Your task to perform on an android device: What's the weather? Image 0: 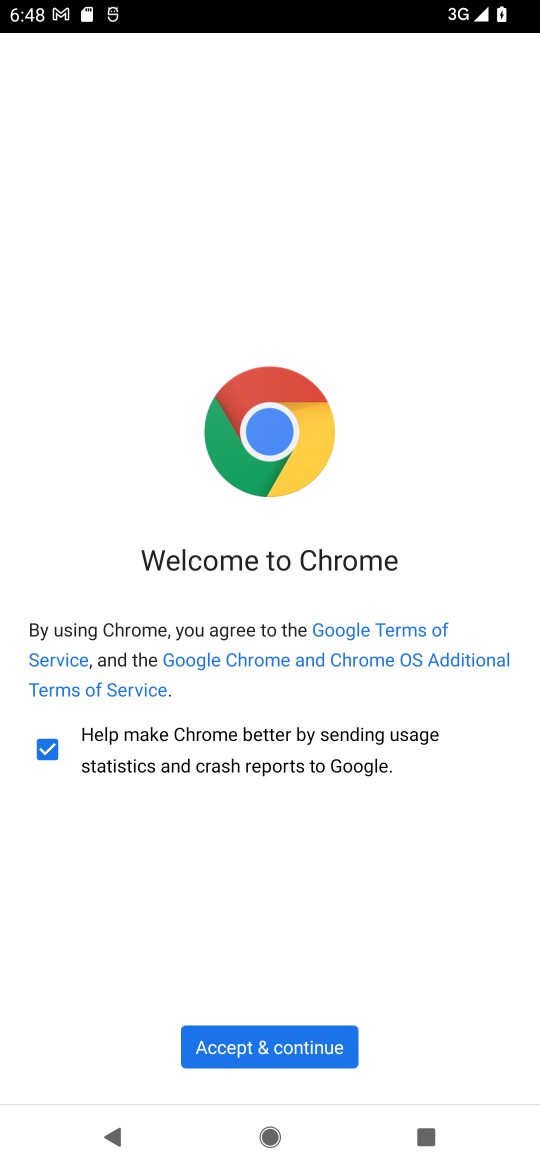
Step 0: press home button
Your task to perform on an android device: What's the weather? Image 1: 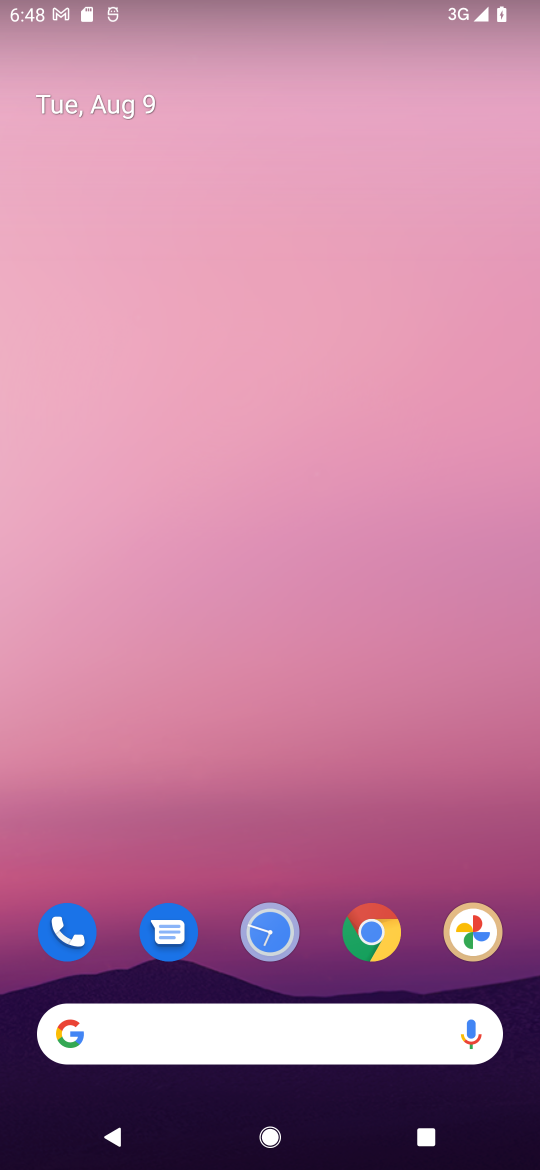
Step 1: drag from (402, 599) to (487, 236)
Your task to perform on an android device: What's the weather? Image 2: 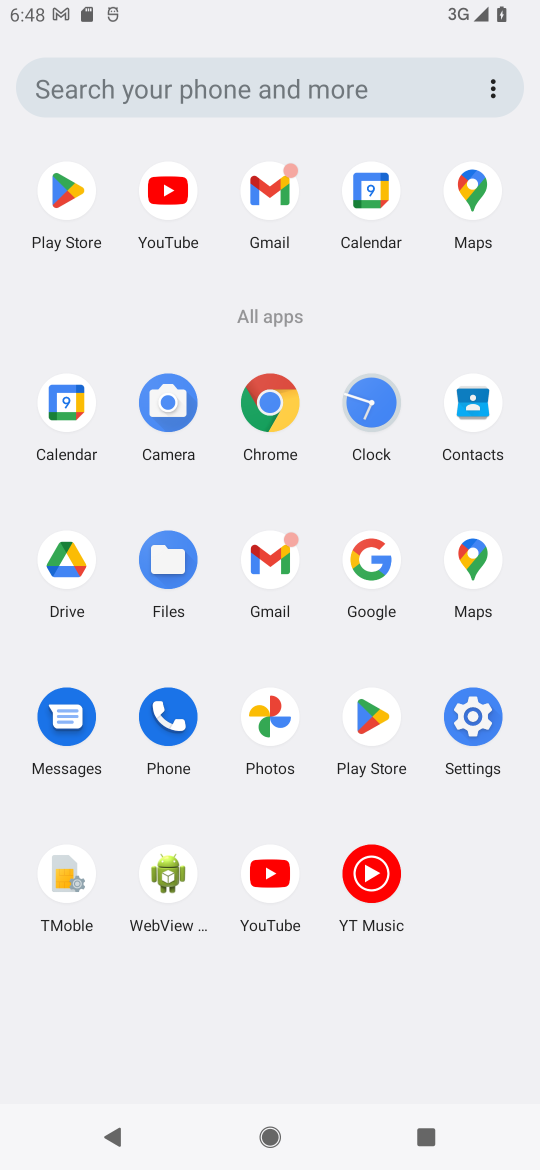
Step 2: click (349, 589)
Your task to perform on an android device: What's the weather? Image 3: 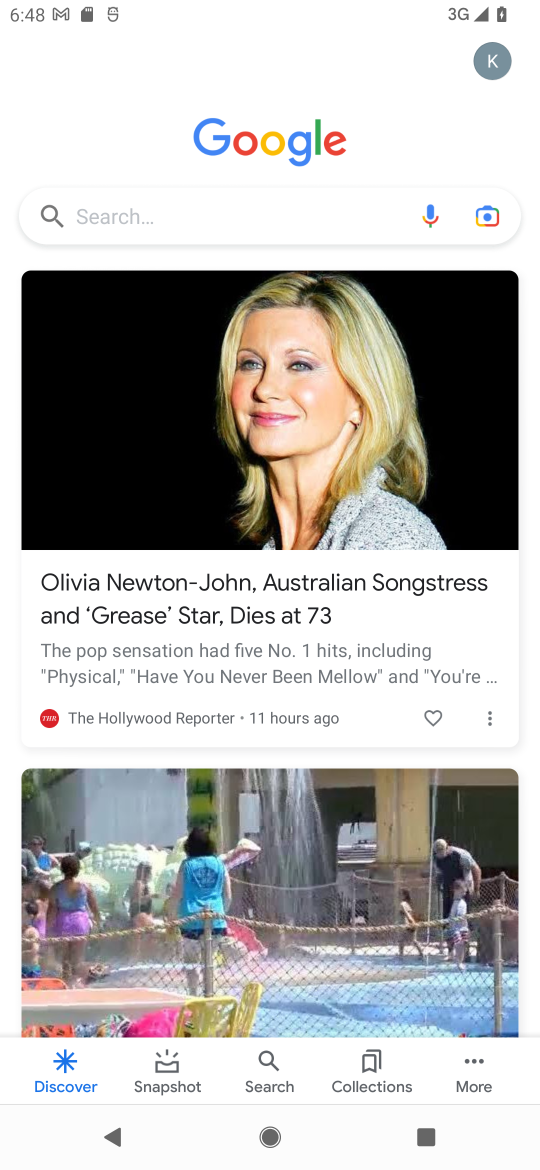
Step 3: click (305, 220)
Your task to perform on an android device: What's the weather? Image 4: 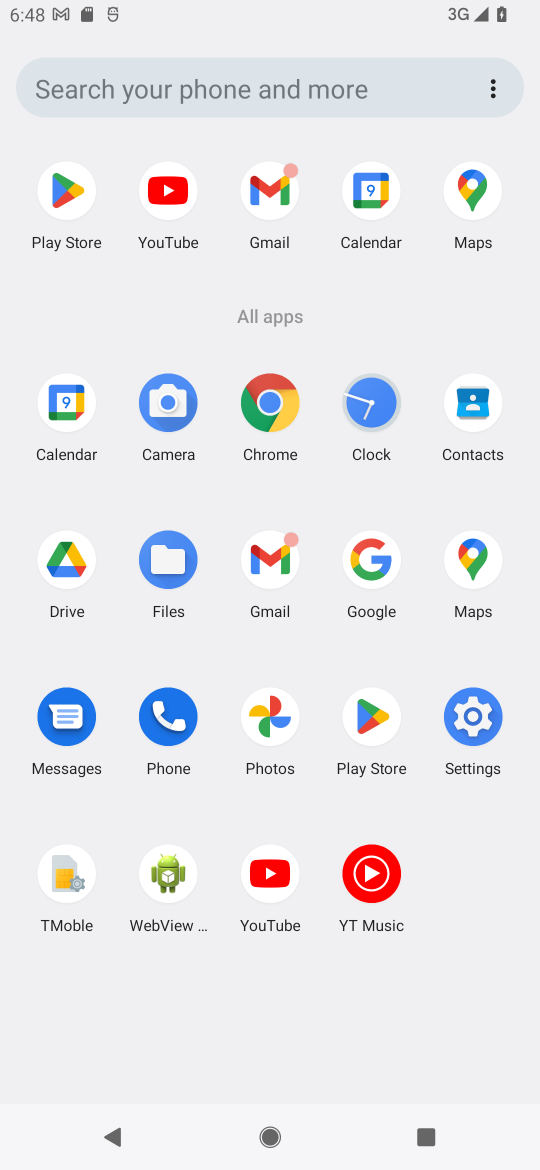
Step 4: click (384, 574)
Your task to perform on an android device: What's the weather? Image 5: 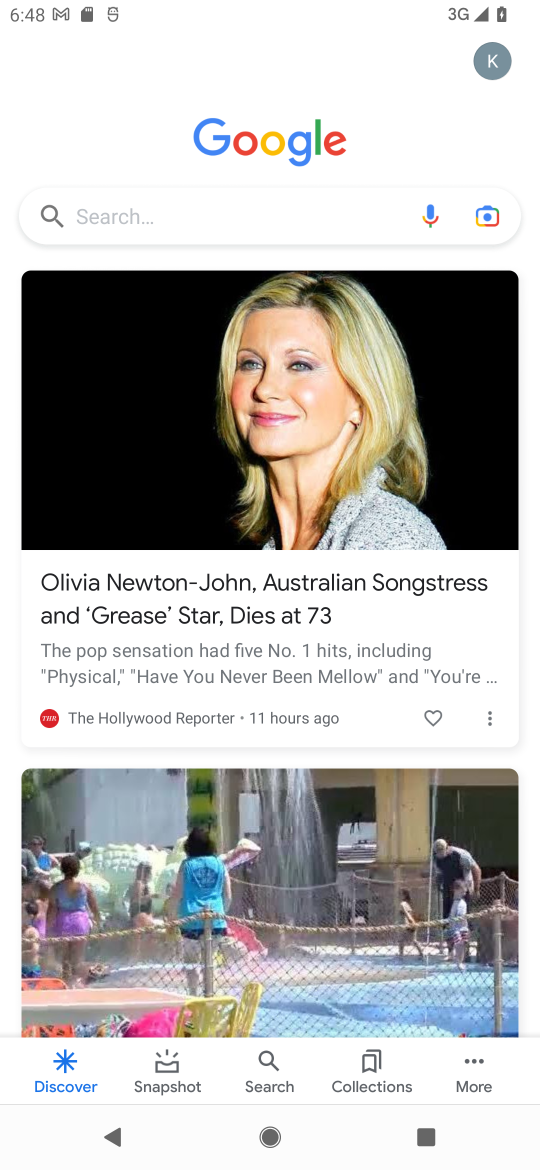
Step 5: click (250, 223)
Your task to perform on an android device: What's the weather? Image 6: 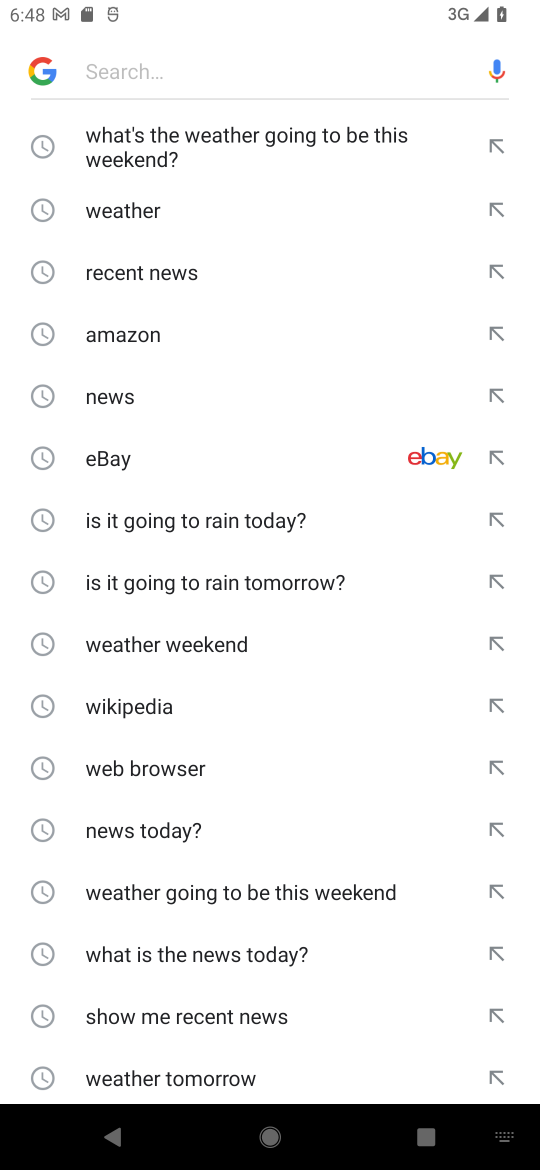
Step 6: click (166, 207)
Your task to perform on an android device: What's the weather? Image 7: 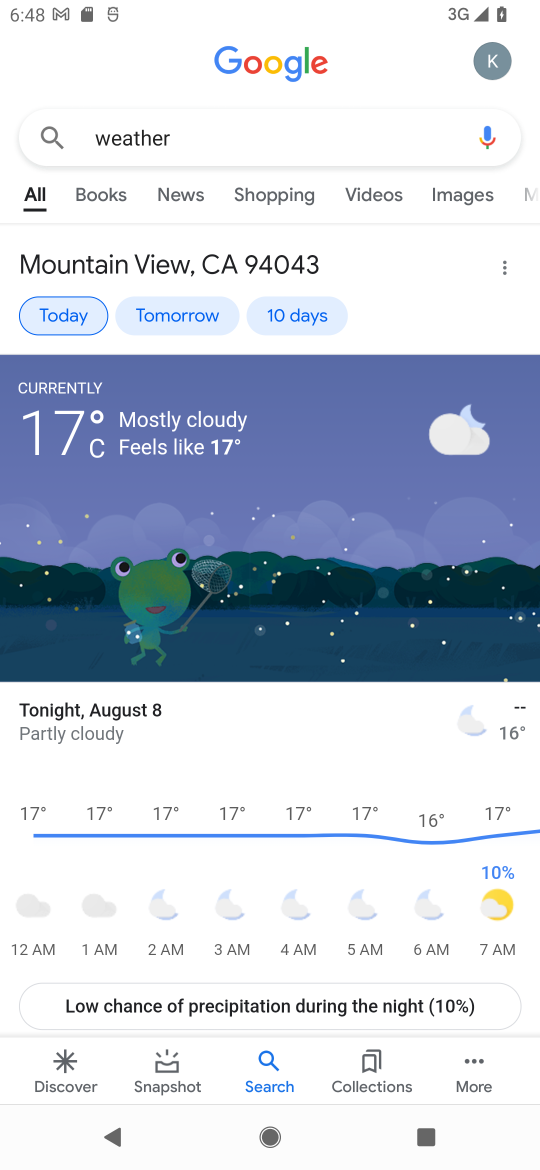
Step 7: task complete